Your task to perform on an android device: When is my next meeting? Image 0: 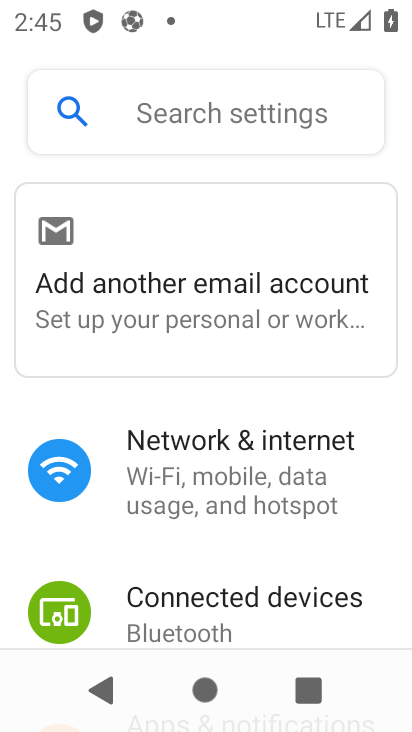
Step 0: press home button
Your task to perform on an android device: When is my next meeting? Image 1: 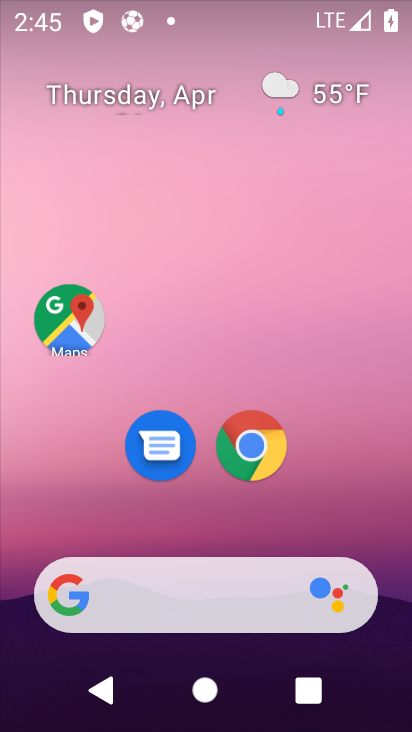
Step 1: drag from (208, 528) to (220, 54)
Your task to perform on an android device: When is my next meeting? Image 2: 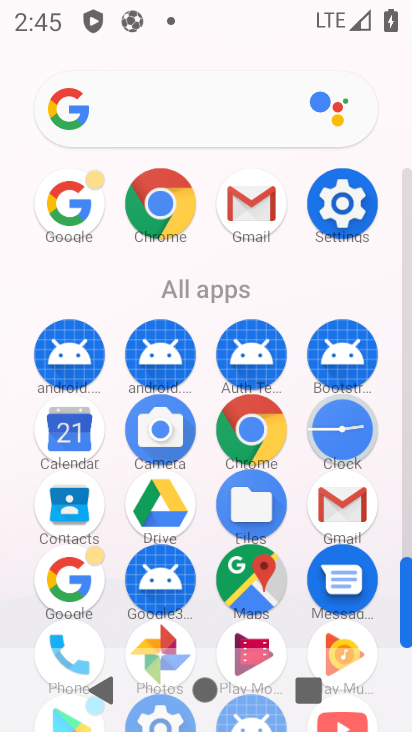
Step 2: click (73, 430)
Your task to perform on an android device: When is my next meeting? Image 3: 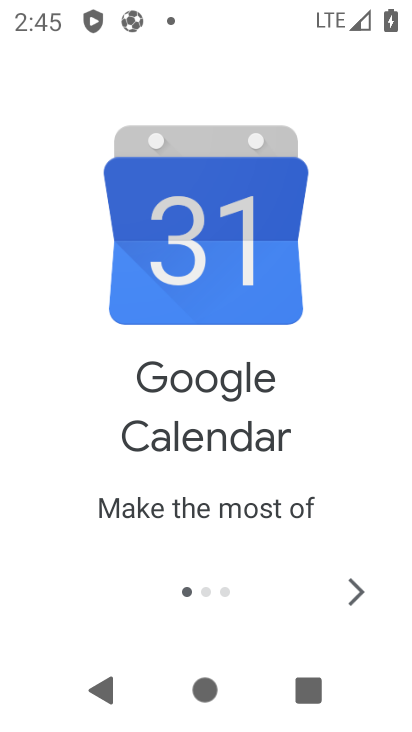
Step 3: click (358, 589)
Your task to perform on an android device: When is my next meeting? Image 4: 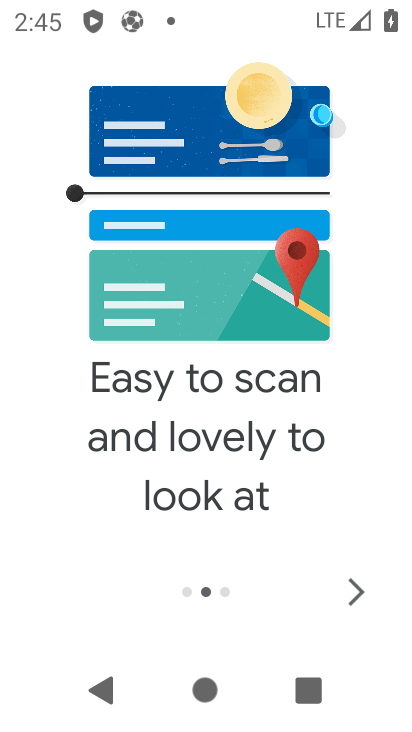
Step 4: click (358, 593)
Your task to perform on an android device: When is my next meeting? Image 5: 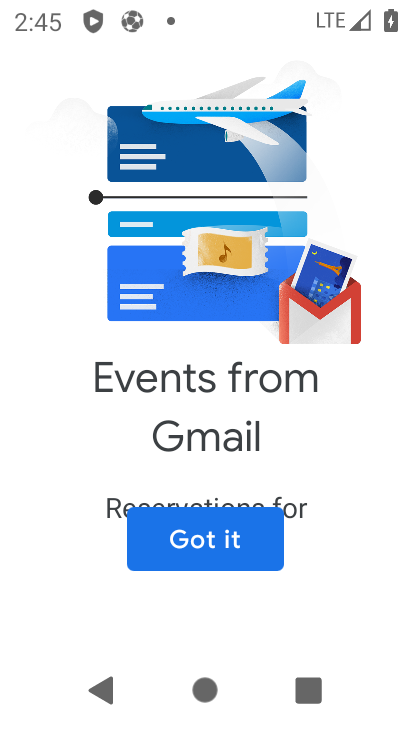
Step 5: click (222, 529)
Your task to perform on an android device: When is my next meeting? Image 6: 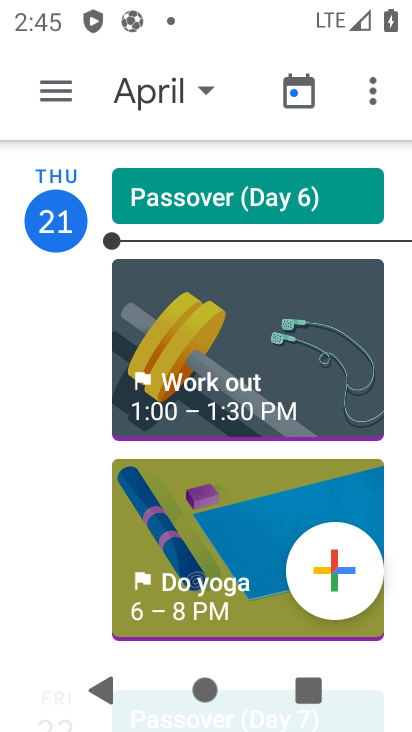
Step 6: click (206, 93)
Your task to perform on an android device: When is my next meeting? Image 7: 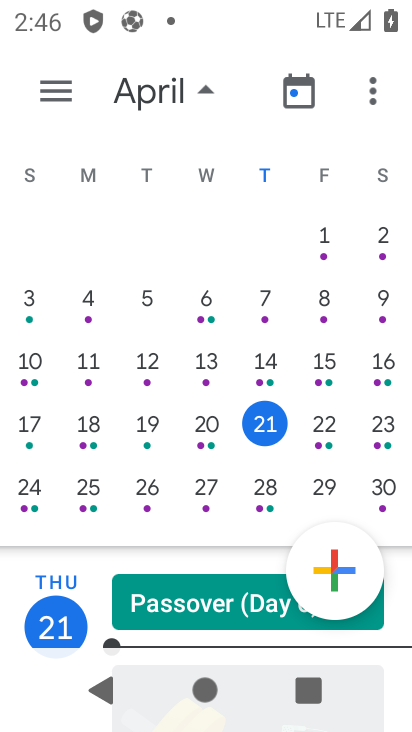
Step 7: click (103, 490)
Your task to perform on an android device: When is my next meeting? Image 8: 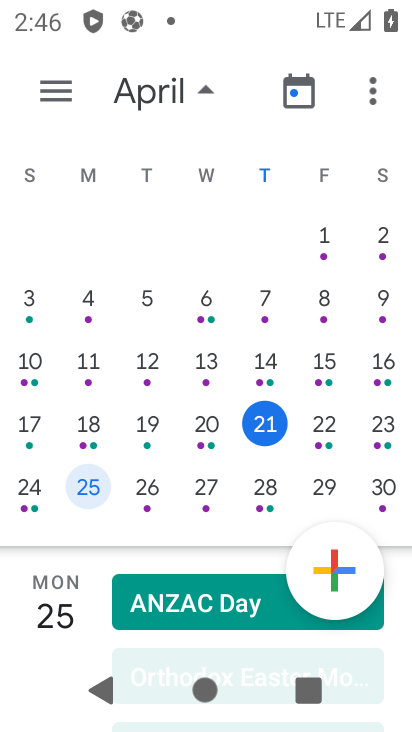
Step 8: task complete